Your task to perform on an android device: toggle improve location accuracy Image 0: 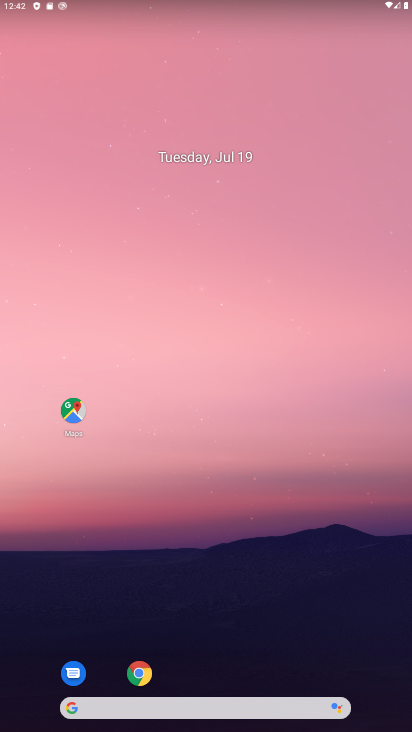
Step 0: drag from (270, 627) to (274, 134)
Your task to perform on an android device: toggle improve location accuracy Image 1: 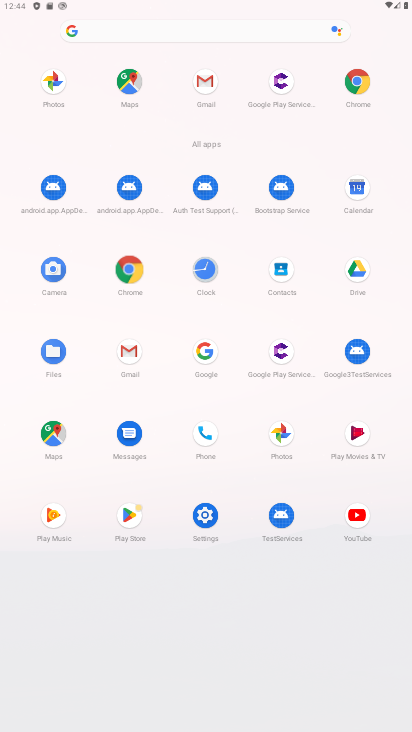
Step 1: click (201, 517)
Your task to perform on an android device: toggle improve location accuracy Image 2: 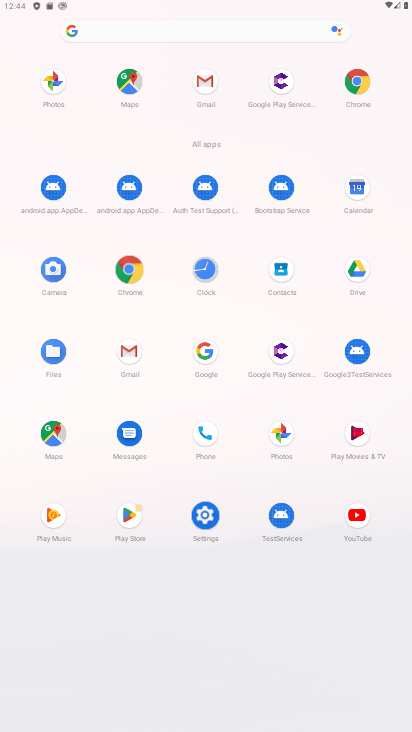
Step 2: click (200, 517)
Your task to perform on an android device: toggle improve location accuracy Image 3: 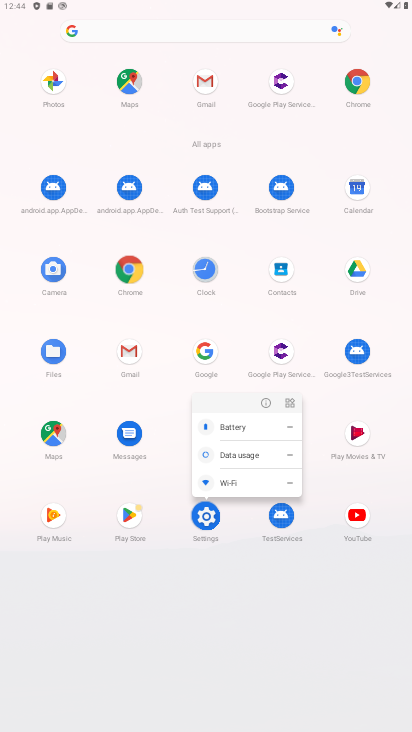
Step 3: click (214, 515)
Your task to perform on an android device: toggle improve location accuracy Image 4: 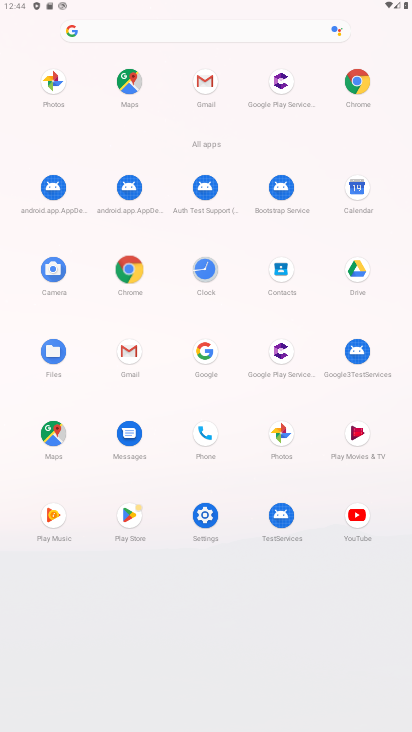
Step 4: click (217, 512)
Your task to perform on an android device: toggle improve location accuracy Image 5: 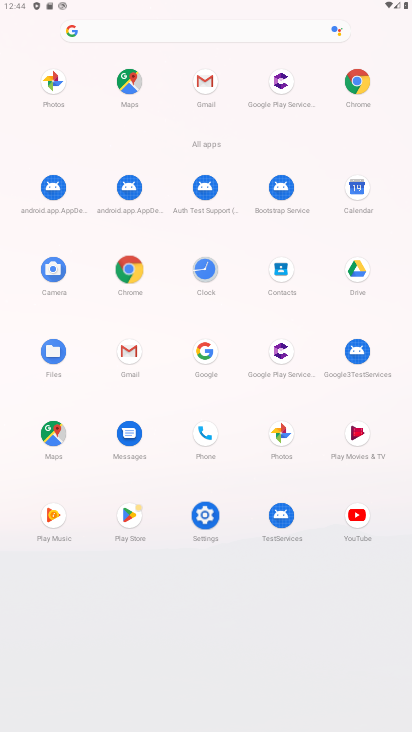
Step 5: click (220, 512)
Your task to perform on an android device: toggle improve location accuracy Image 6: 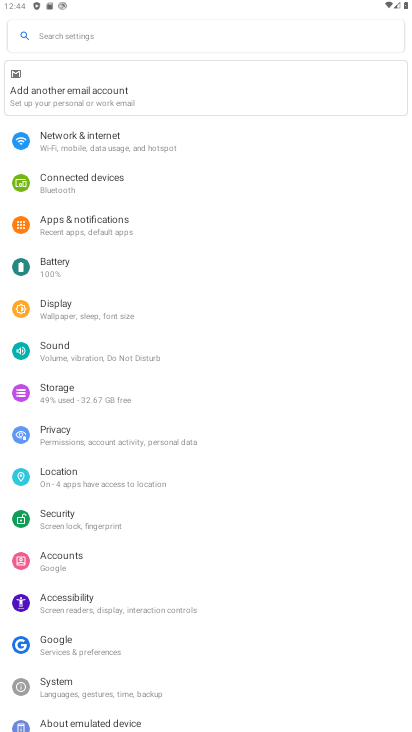
Step 6: click (50, 472)
Your task to perform on an android device: toggle improve location accuracy Image 7: 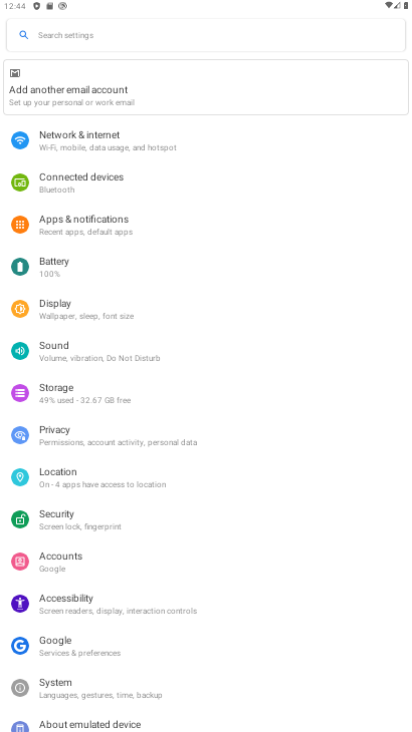
Step 7: click (62, 469)
Your task to perform on an android device: toggle improve location accuracy Image 8: 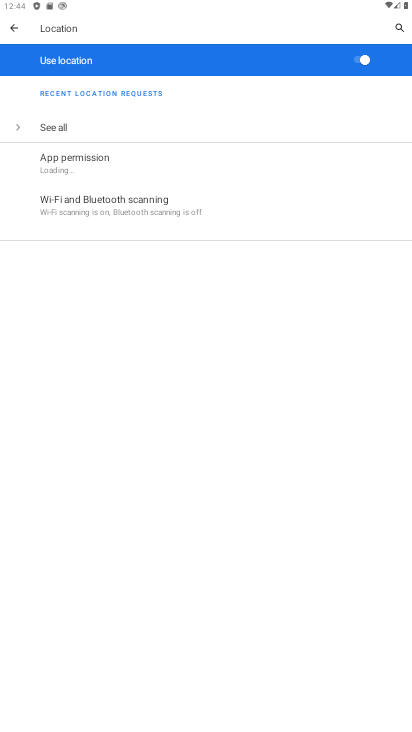
Step 8: click (63, 470)
Your task to perform on an android device: toggle improve location accuracy Image 9: 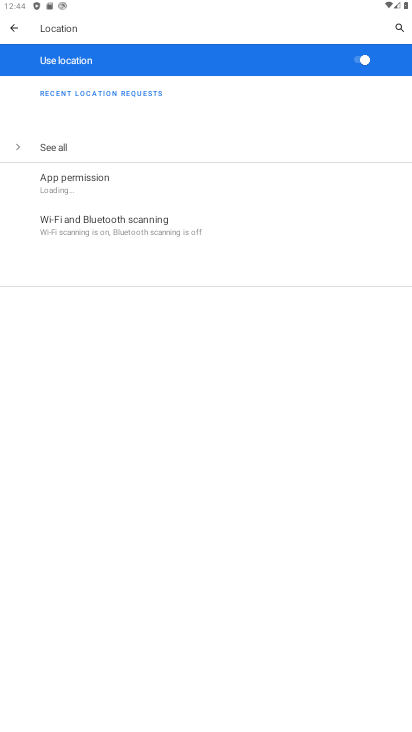
Step 9: click (66, 472)
Your task to perform on an android device: toggle improve location accuracy Image 10: 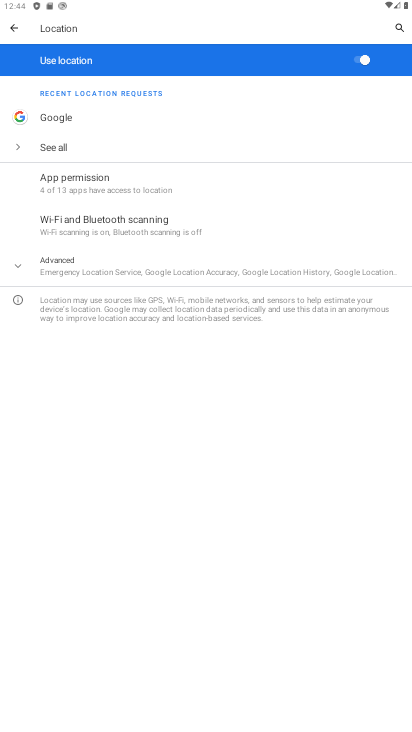
Step 10: click (58, 268)
Your task to perform on an android device: toggle improve location accuracy Image 11: 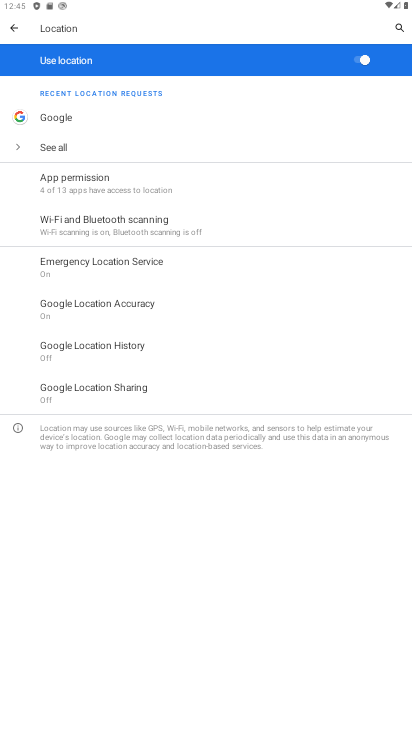
Step 11: click (96, 297)
Your task to perform on an android device: toggle improve location accuracy Image 12: 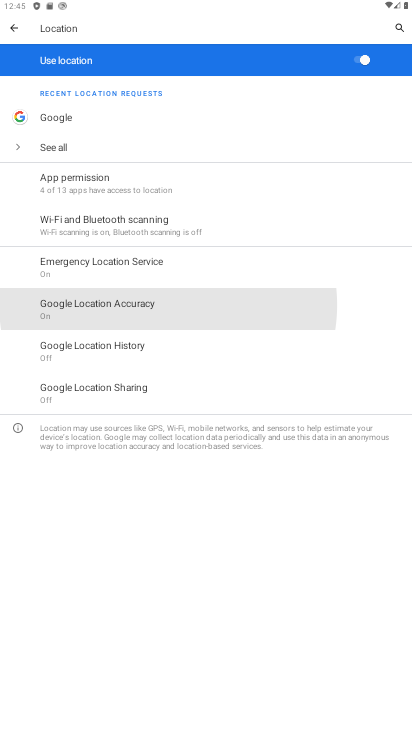
Step 12: click (99, 301)
Your task to perform on an android device: toggle improve location accuracy Image 13: 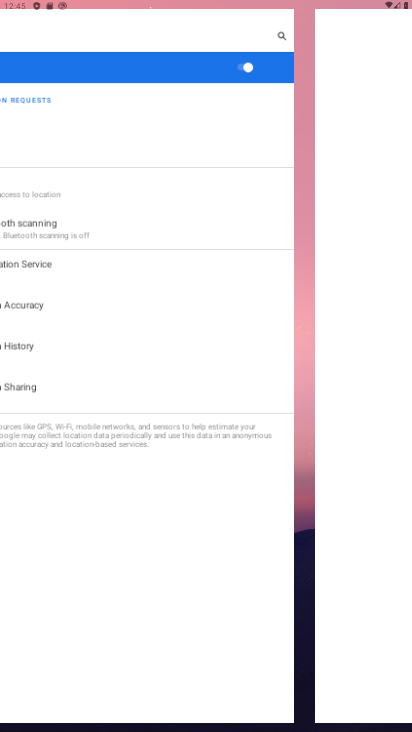
Step 13: click (103, 299)
Your task to perform on an android device: toggle improve location accuracy Image 14: 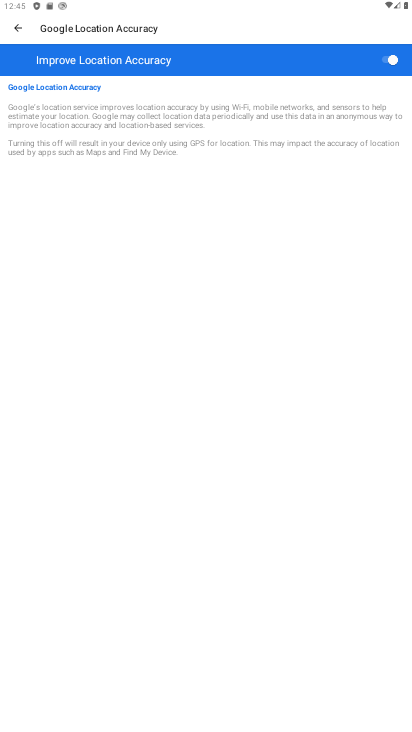
Step 14: click (390, 65)
Your task to perform on an android device: toggle improve location accuracy Image 15: 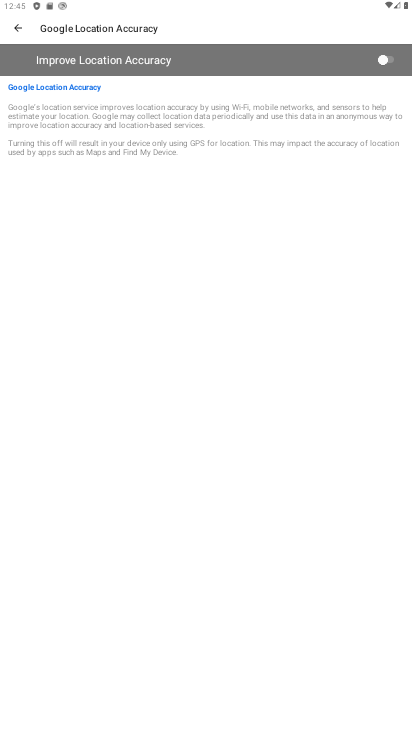
Step 15: task complete